Your task to perform on an android device: turn off wifi Image 0: 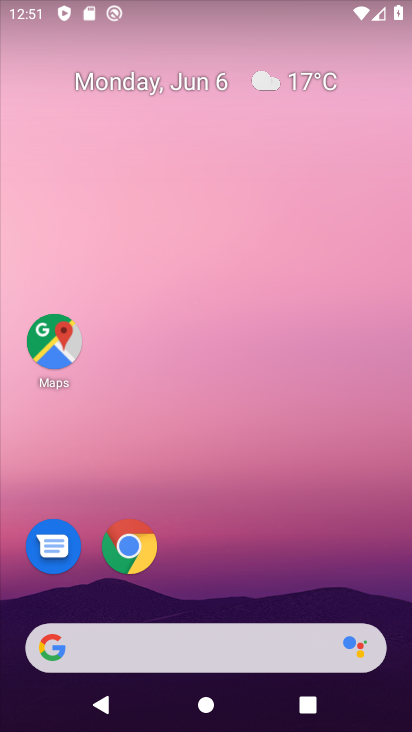
Step 0: drag from (388, 703) to (356, 107)
Your task to perform on an android device: turn off wifi Image 1: 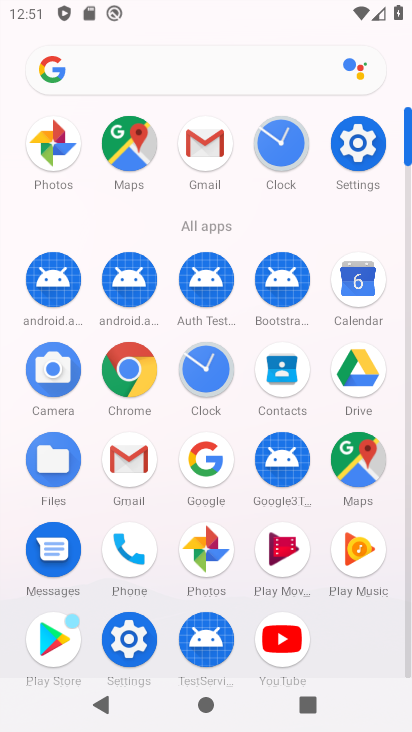
Step 1: click (343, 146)
Your task to perform on an android device: turn off wifi Image 2: 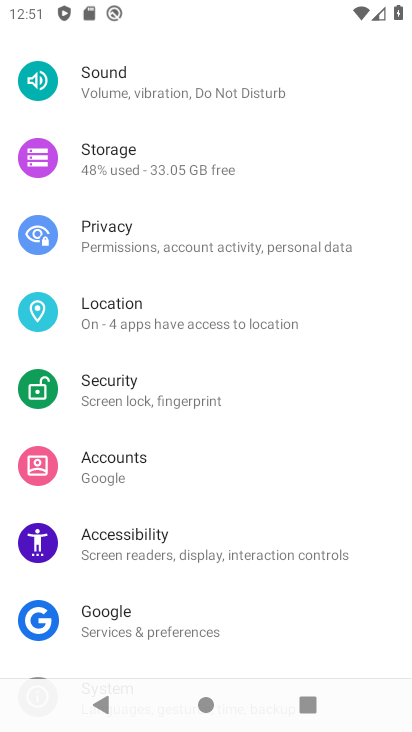
Step 2: drag from (347, 279) to (354, 552)
Your task to perform on an android device: turn off wifi Image 3: 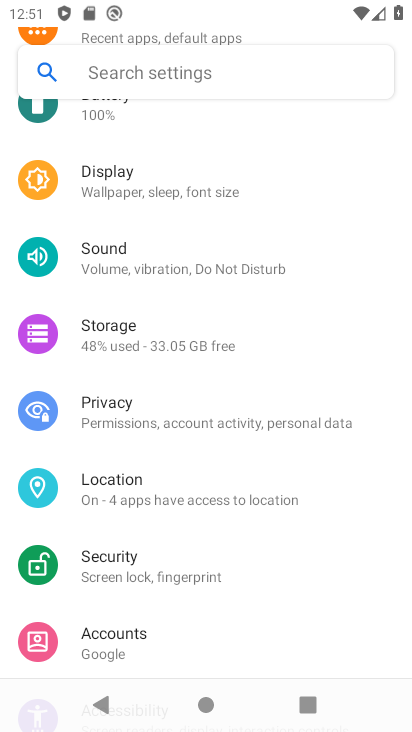
Step 3: drag from (368, 162) to (375, 652)
Your task to perform on an android device: turn off wifi Image 4: 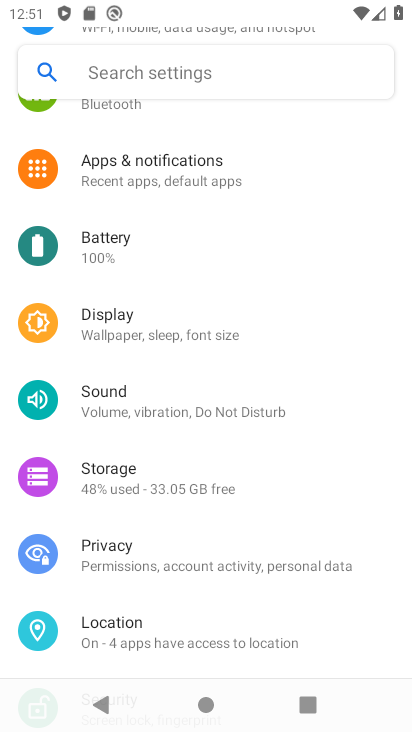
Step 4: drag from (344, 133) to (394, 620)
Your task to perform on an android device: turn off wifi Image 5: 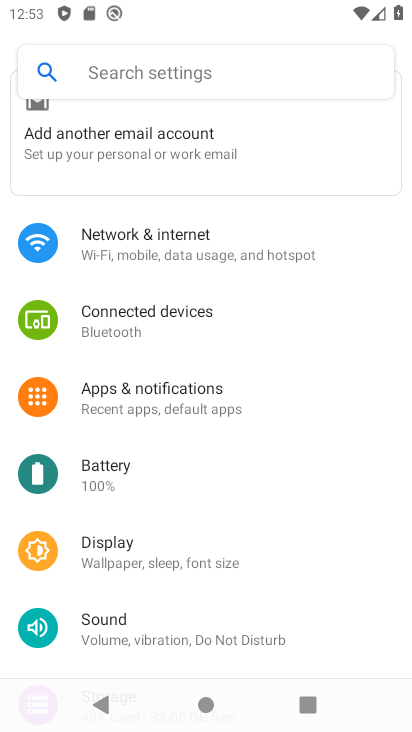
Step 5: click (165, 247)
Your task to perform on an android device: turn off wifi Image 6: 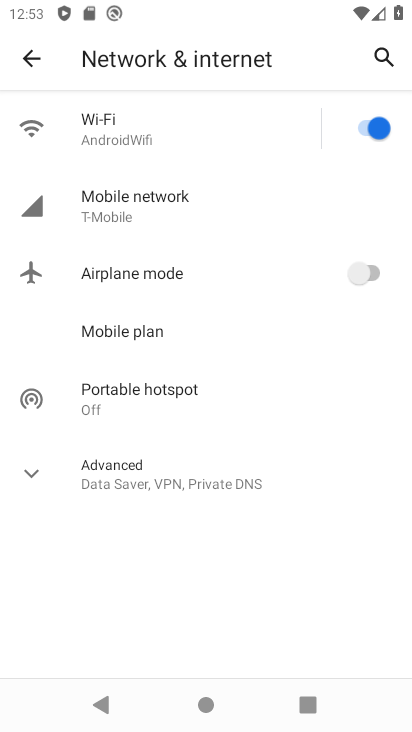
Step 6: click (355, 128)
Your task to perform on an android device: turn off wifi Image 7: 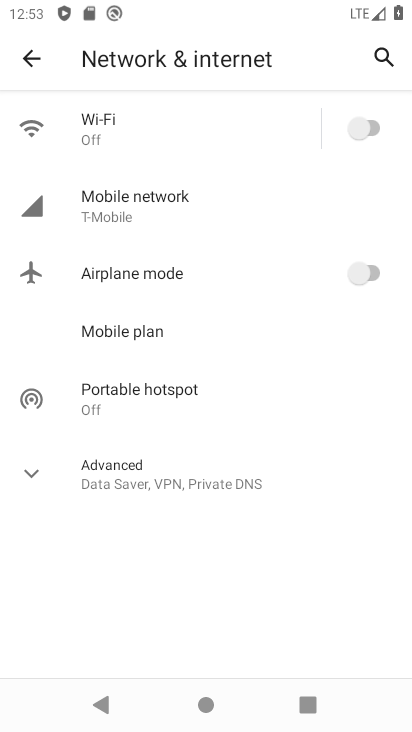
Step 7: task complete